Your task to perform on an android device: set the stopwatch Image 0: 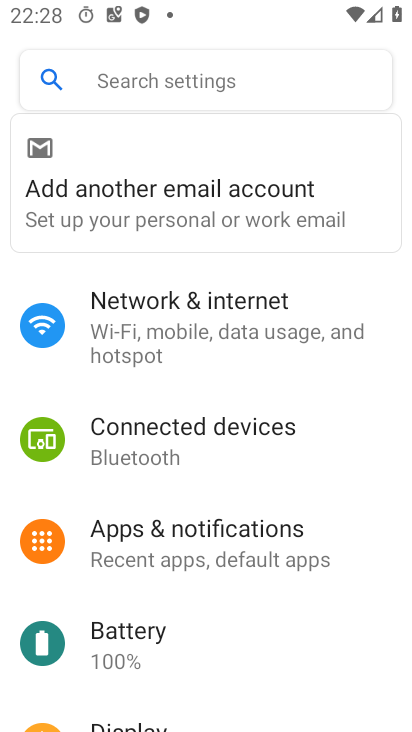
Step 0: press home button
Your task to perform on an android device: set the stopwatch Image 1: 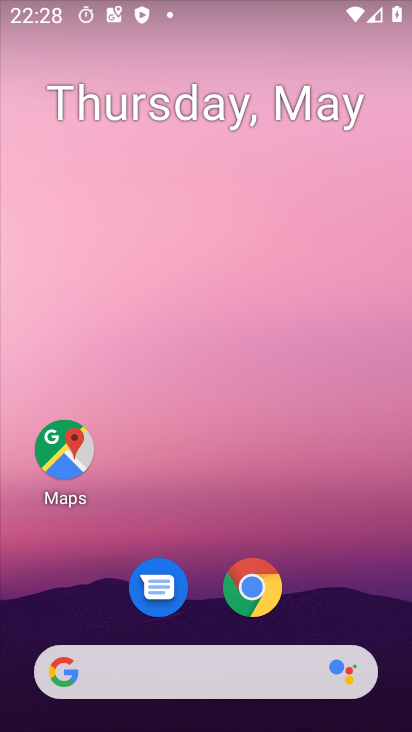
Step 1: drag from (339, 639) to (321, 1)
Your task to perform on an android device: set the stopwatch Image 2: 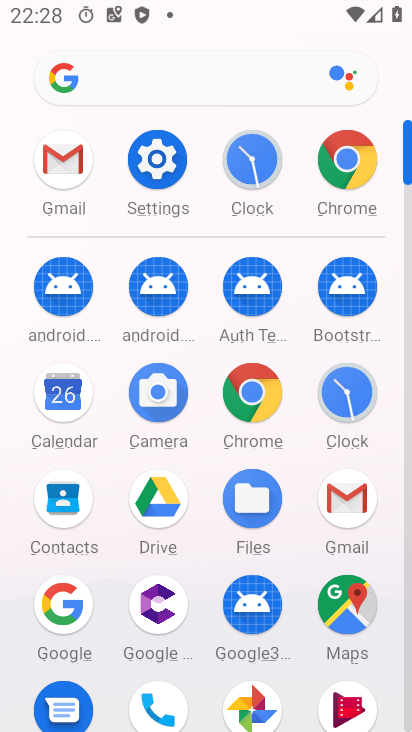
Step 2: click (252, 172)
Your task to perform on an android device: set the stopwatch Image 3: 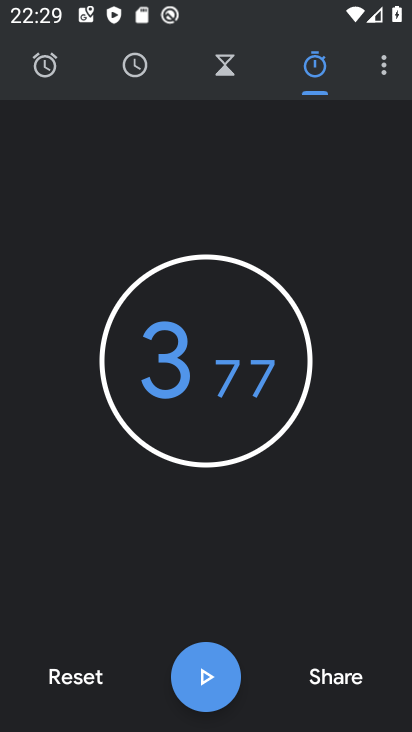
Step 3: press home button
Your task to perform on an android device: set the stopwatch Image 4: 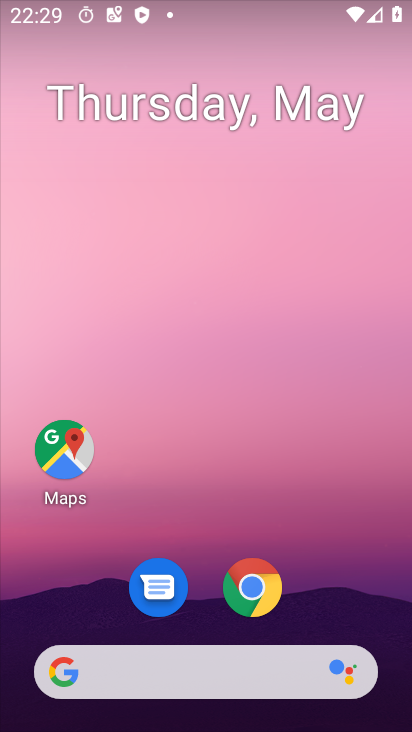
Step 4: drag from (330, 631) to (311, 3)
Your task to perform on an android device: set the stopwatch Image 5: 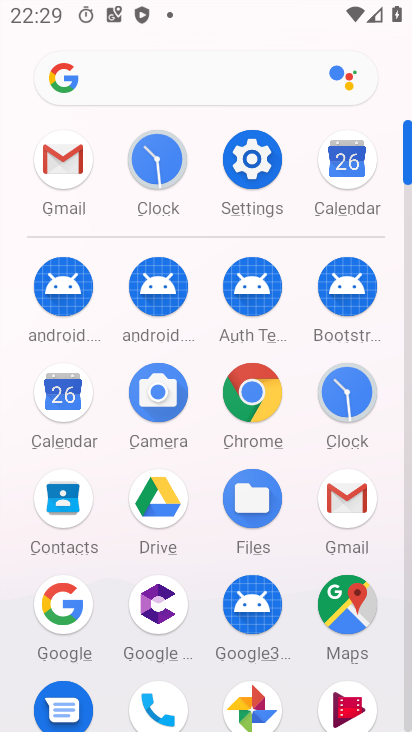
Step 5: click (159, 162)
Your task to perform on an android device: set the stopwatch Image 6: 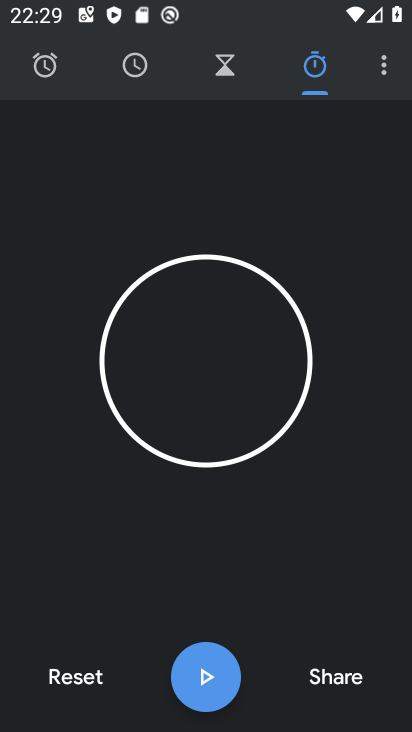
Step 6: click (53, 689)
Your task to perform on an android device: set the stopwatch Image 7: 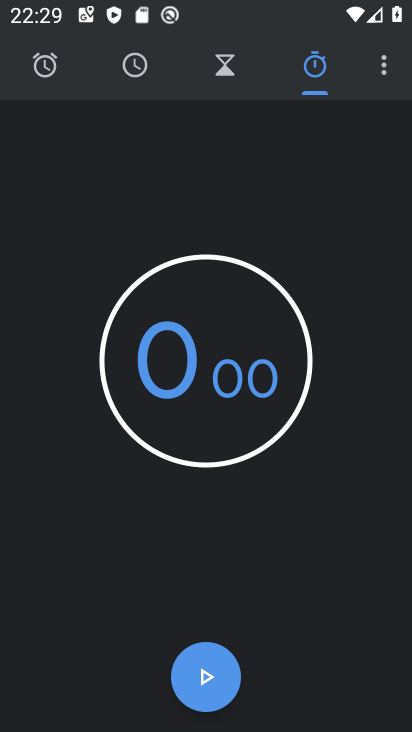
Step 7: click (203, 684)
Your task to perform on an android device: set the stopwatch Image 8: 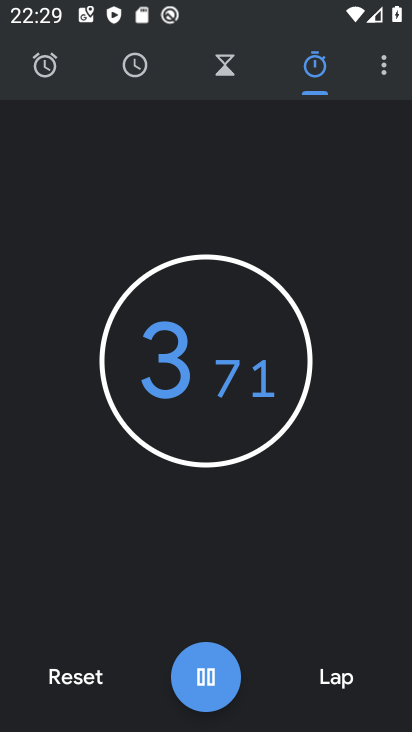
Step 8: click (86, 683)
Your task to perform on an android device: set the stopwatch Image 9: 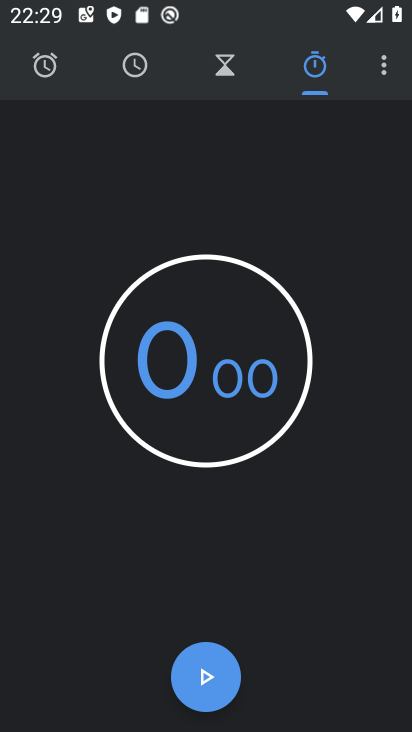
Step 9: click (196, 689)
Your task to perform on an android device: set the stopwatch Image 10: 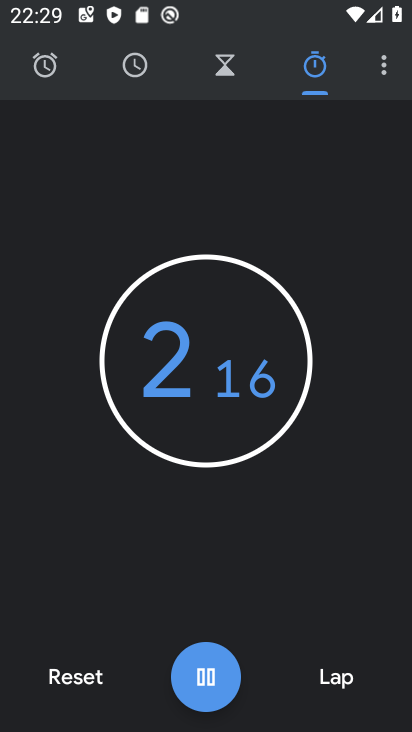
Step 10: click (199, 687)
Your task to perform on an android device: set the stopwatch Image 11: 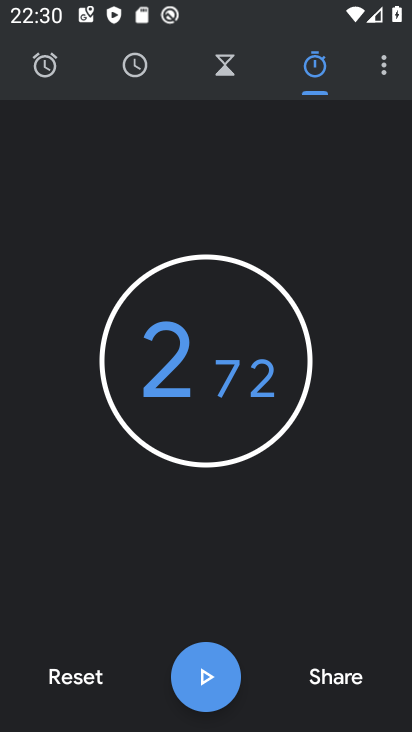
Step 11: task complete